Your task to perform on an android device: Open Maps and search for coffee Image 0: 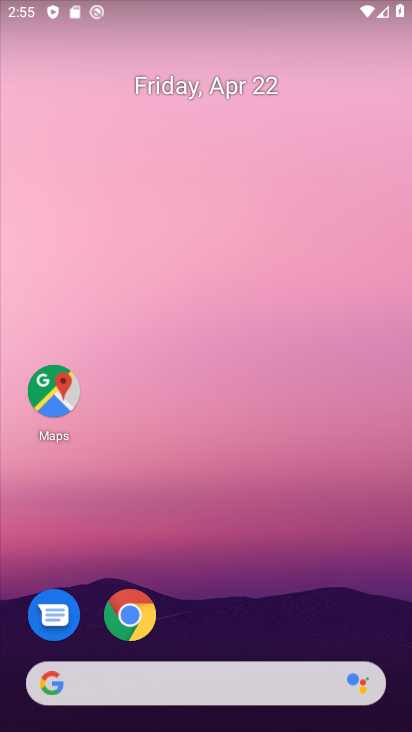
Step 0: click (49, 390)
Your task to perform on an android device: Open Maps and search for coffee Image 1: 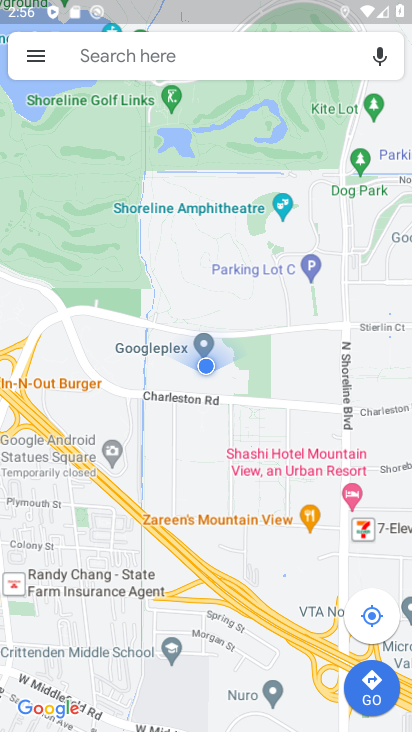
Step 1: click (125, 53)
Your task to perform on an android device: Open Maps and search for coffee Image 2: 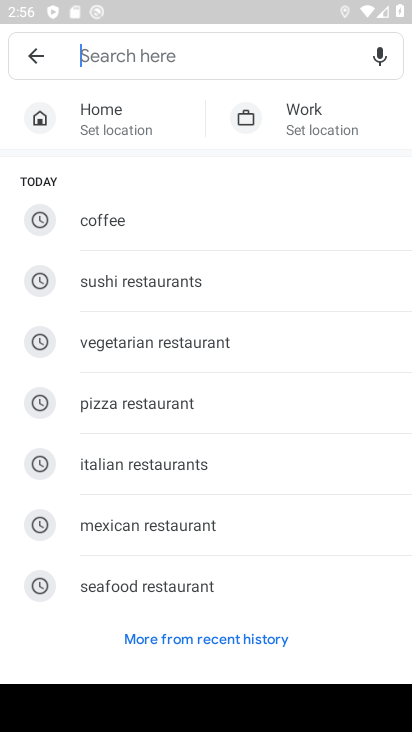
Step 2: click (93, 222)
Your task to perform on an android device: Open Maps and search for coffee Image 3: 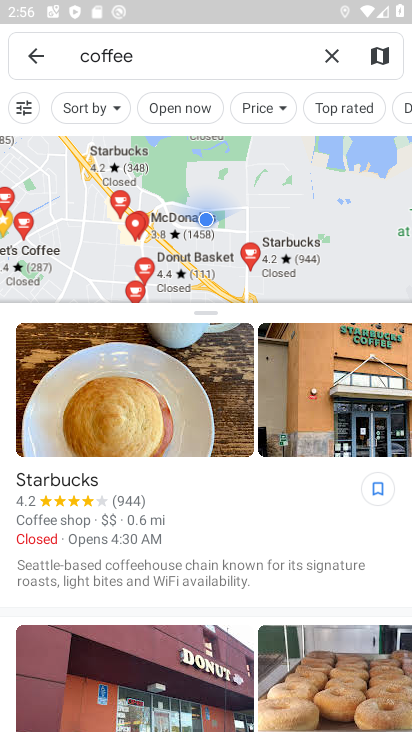
Step 3: task complete